Your task to perform on an android device: Go to Android settings Image 0: 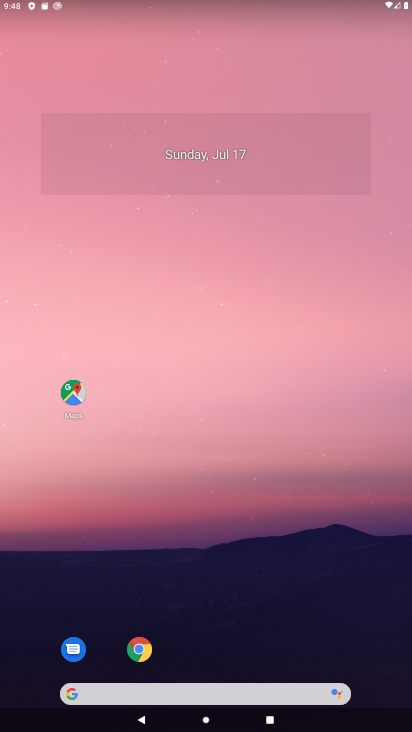
Step 0: drag from (18, 691) to (26, 87)
Your task to perform on an android device: Go to Android settings Image 1: 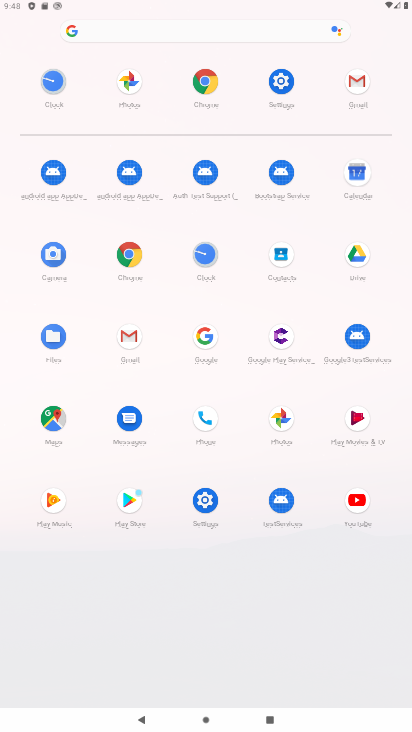
Step 1: click (203, 508)
Your task to perform on an android device: Go to Android settings Image 2: 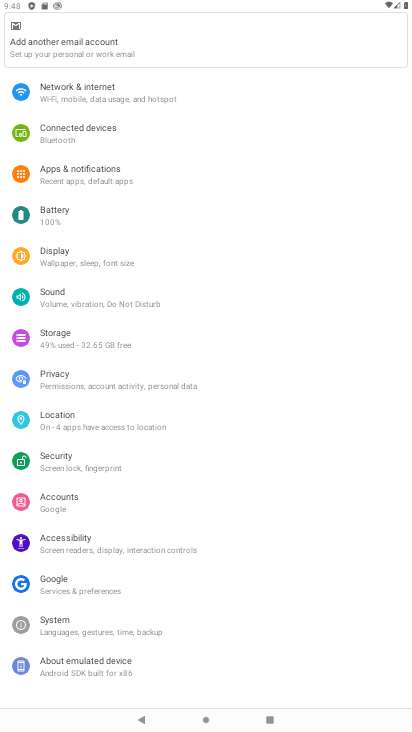
Step 2: click (100, 665)
Your task to perform on an android device: Go to Android settings Image 3: 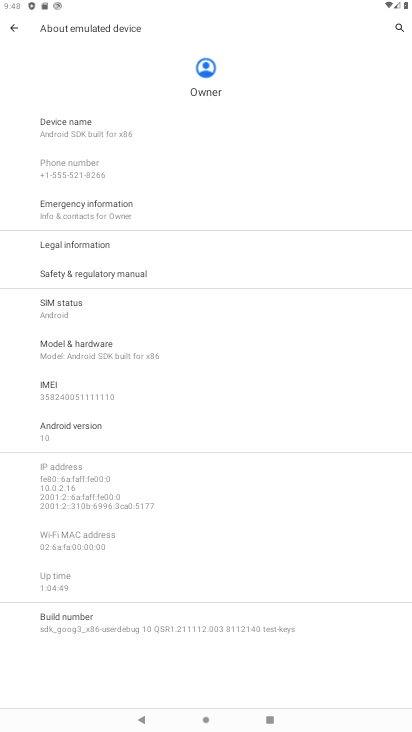
Step 3: click (105, 428)
Your task to perform on an android device: Go to Android settings Image 4: 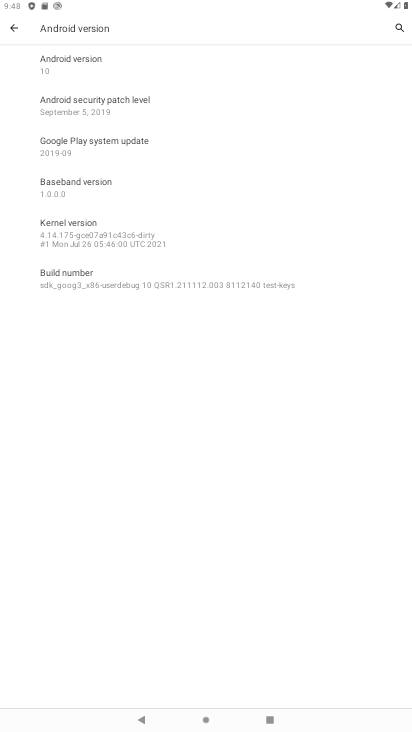
Step 4: task complete